Your task to perform on an android device: open app "DoorDash - Food Delivery" (install if not already installed) Image 0: 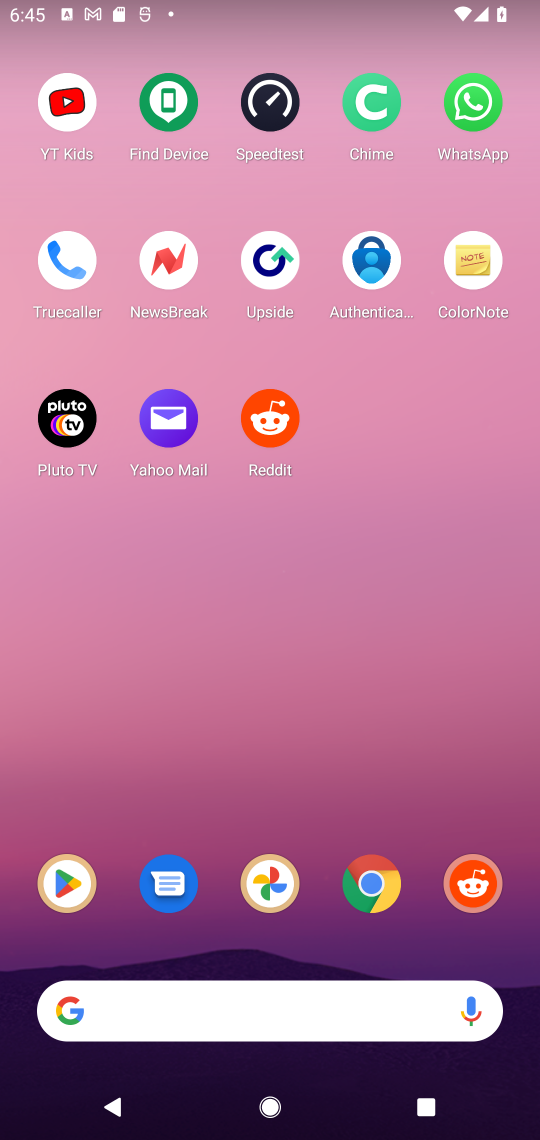
Step 0: drag from (336, 239) to (349, 115)
Your task to perform on an android device: open app "DoorDash - Food Delivery" (install if not already installed) Image 1: 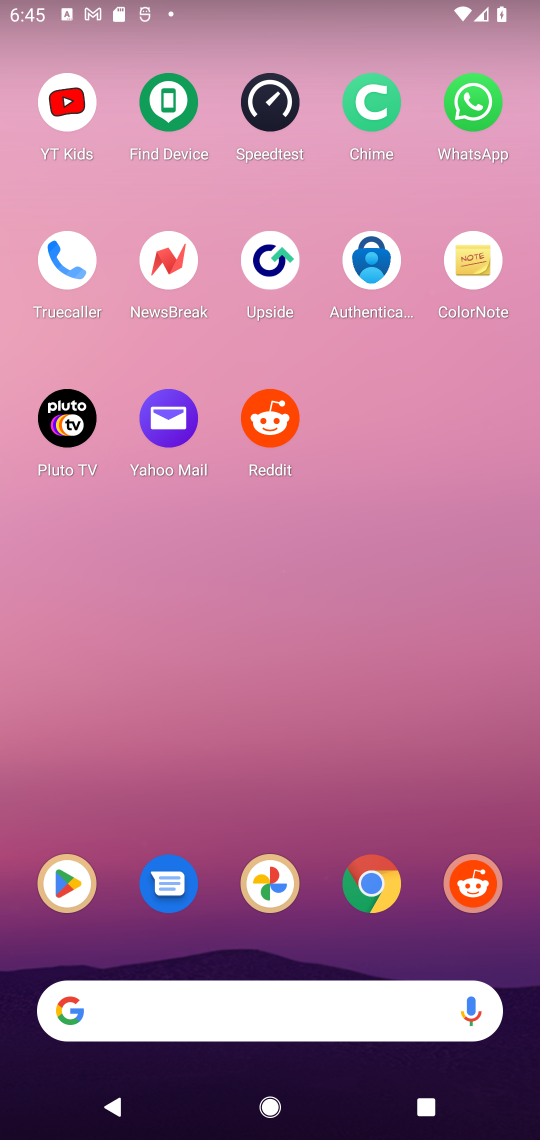
Step 1: drag from (282, 611) to (20, 597)
Your task to perform on an android device: open app "DoorDash - Food Delivery" (install if not already installed) Image 2: 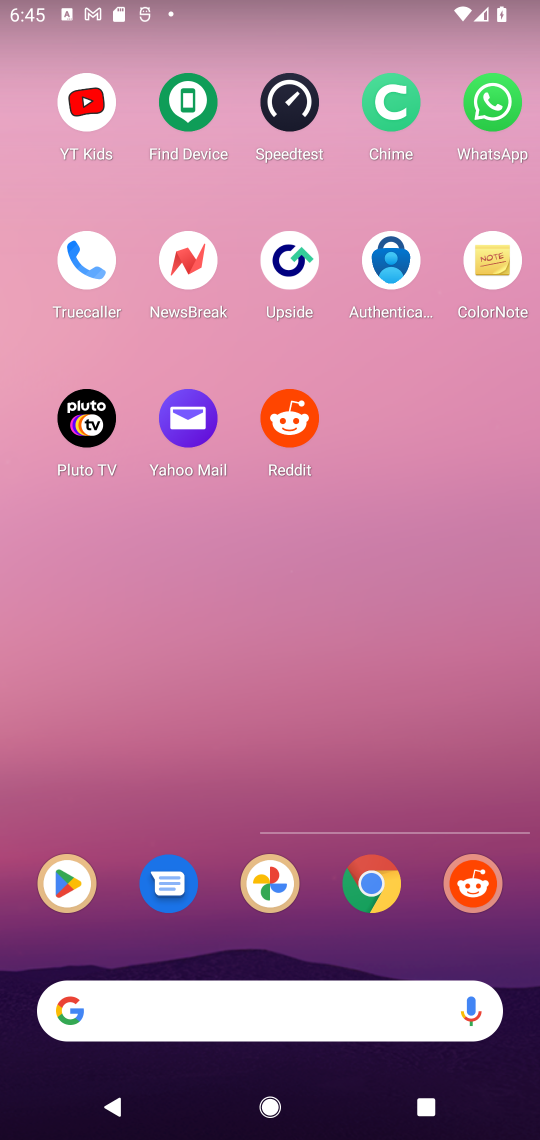
Step 2: drag from (477, 588) to (524, 625)
Your task to perform on an android device: open app "DoorDash - Food Delivery" (install if not already installed) Image 3: 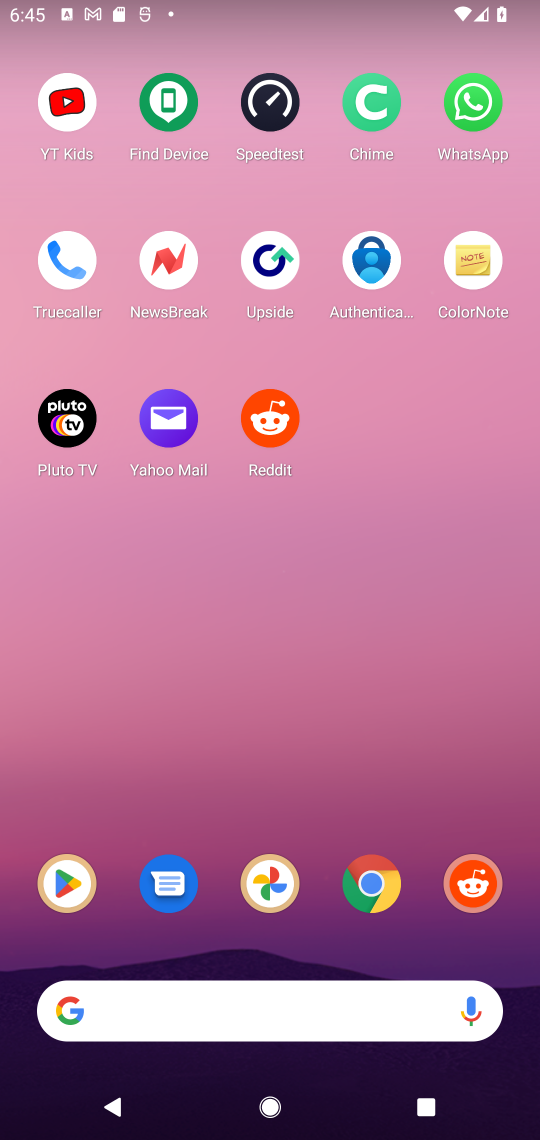
Step 3: drag from (69, 626) to (540, 672)
Your task to perform on an android device: open app "DoorDash - Food Delivery" (install if not already installed) Image 4: 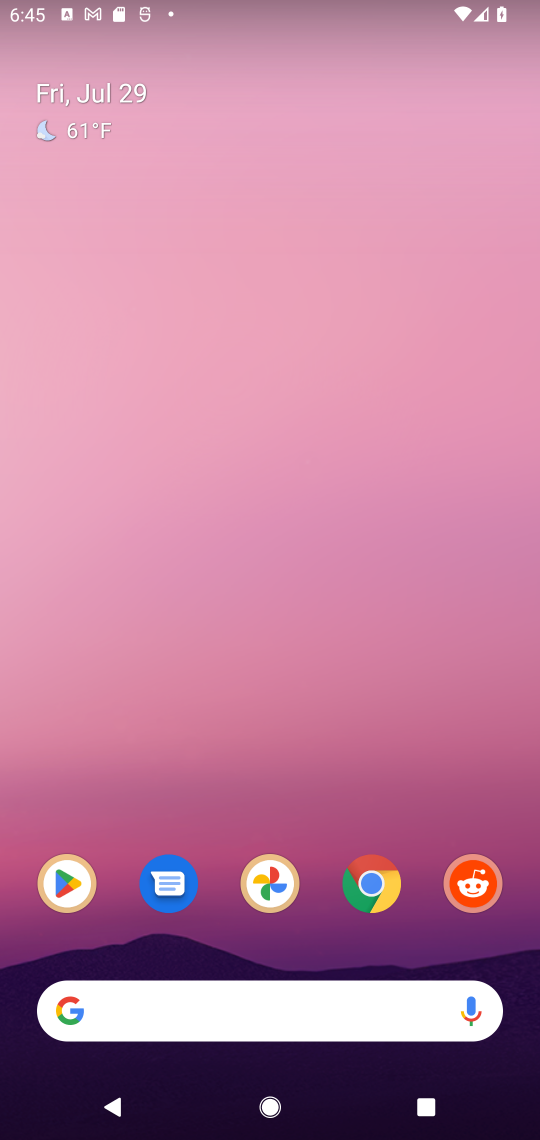
Step 4: drag from (228, 906) to (356, 15)
Your task to perform on an android device: open app "DoorDash - Food Delivery" (install if not already installed) Image 5: 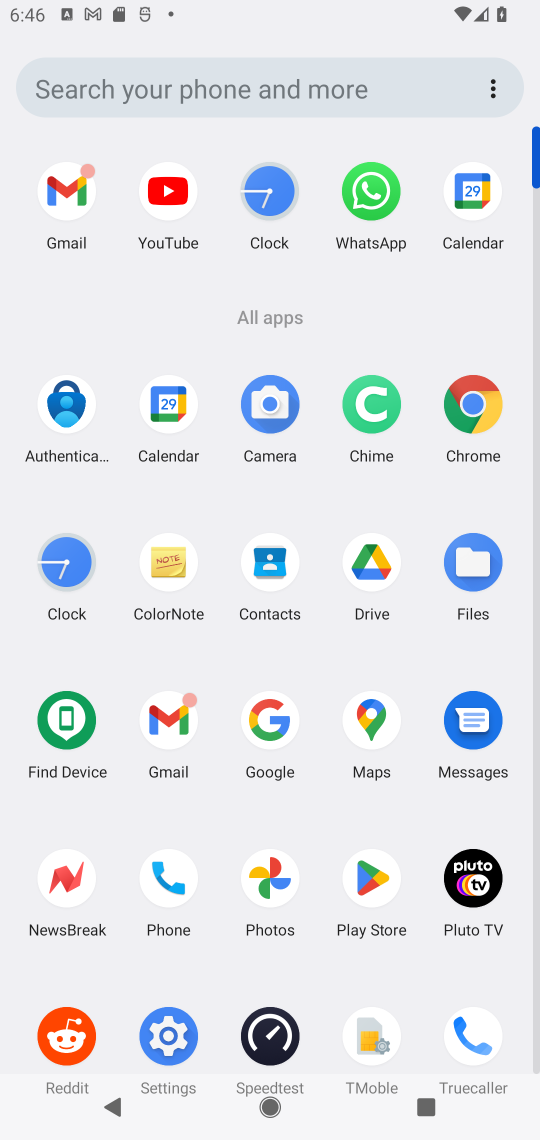
Step 5: drag from (221, 913) to (351, 197)
Your task to perform on an android device: open app "DoorDash - Food Delivery" (install if not already installed) Image 6: 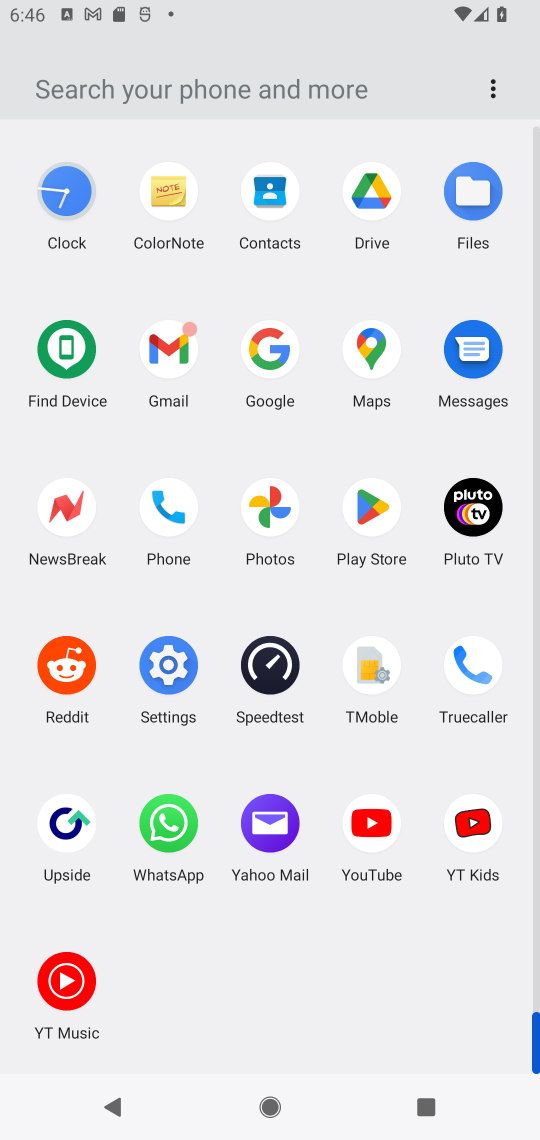
Step 6: drag from (360, 355) to (332, 838)
Your task to perform on an android device: open app "DoorDash - Food Delivery" (install if not already installed) Image 7: 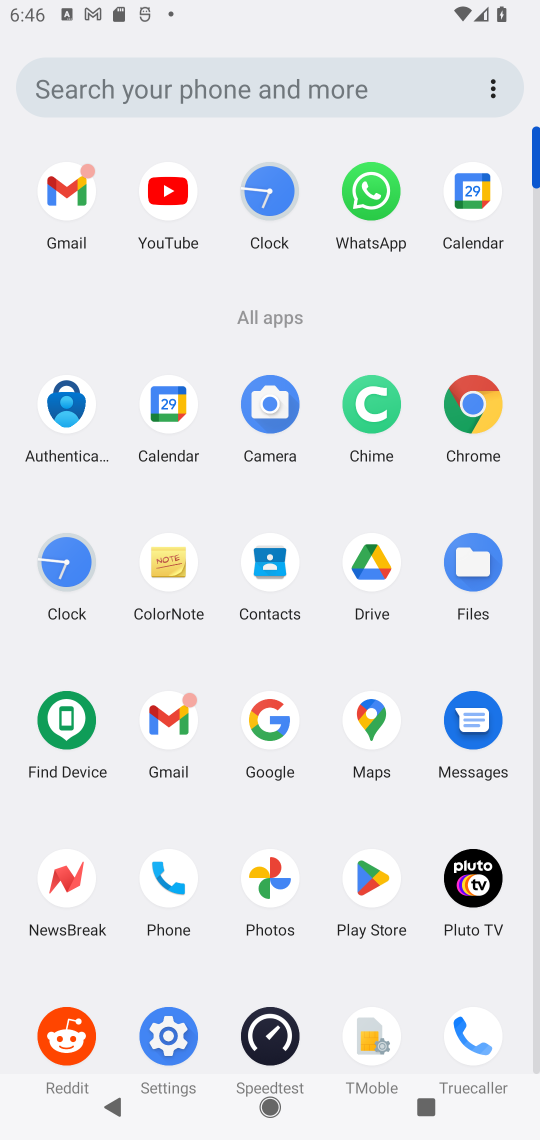
Step 7: click (360, 876)
Your task to perform on an android device: open app "DoorDash - Food Delivery" (install if not already installed) Image 8: 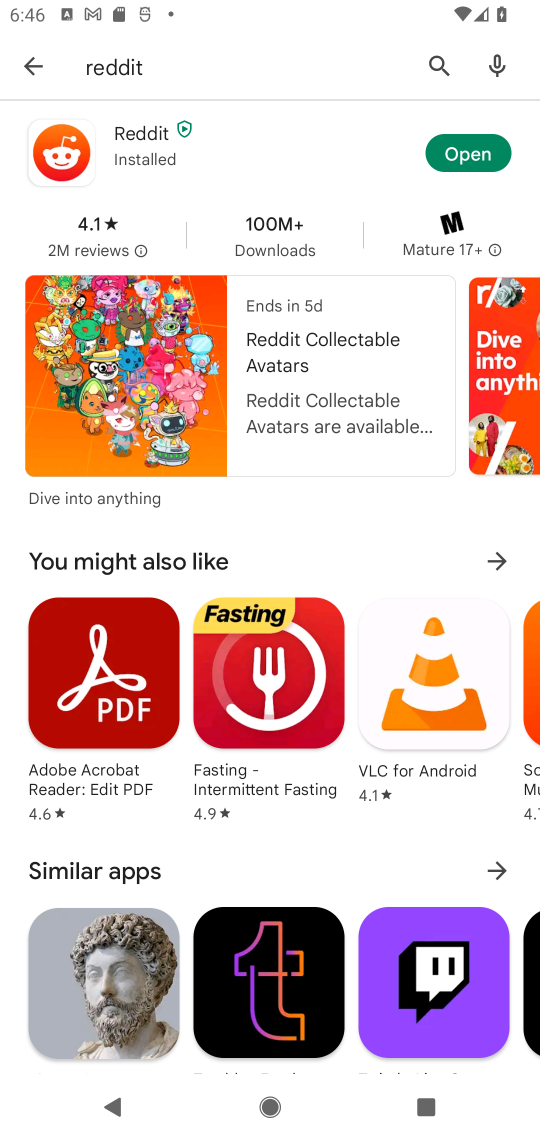
Step 8: click (440, 57)
Your task to perform on an android device: open app "DoorDash - Food Delivery" (install if not already installed) Image 9: 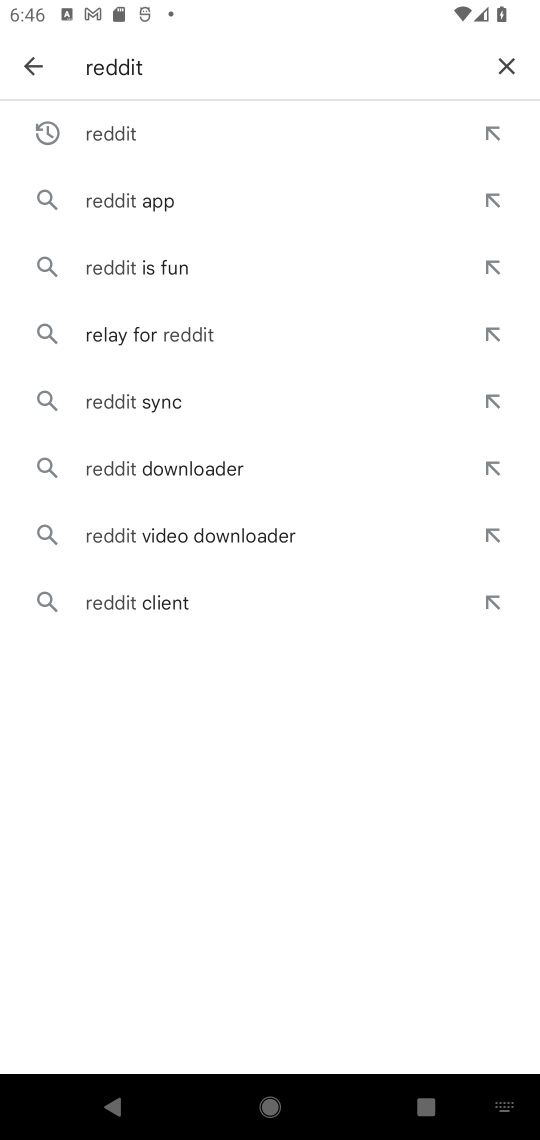
Step 9: click (497, 64)
Your task to perform on an android device: open app "DoorDash - Food Delivery" (install if not already installed) Image 10: 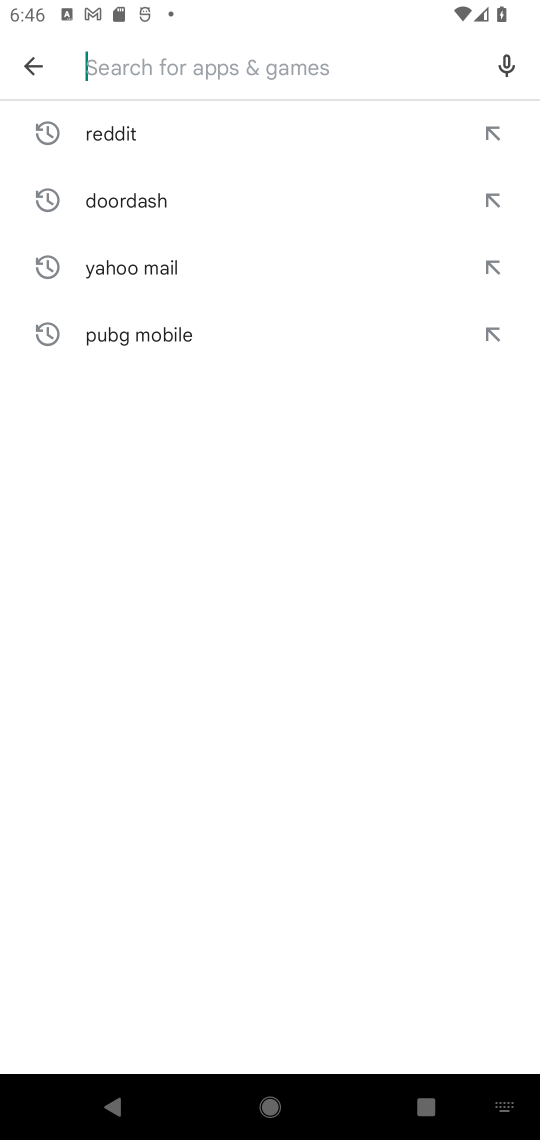
Step 10: click (162, 188)
Your task to perform on an android device: open app "DoorDash - Food Delivery" (install if not already installed) Image 11: 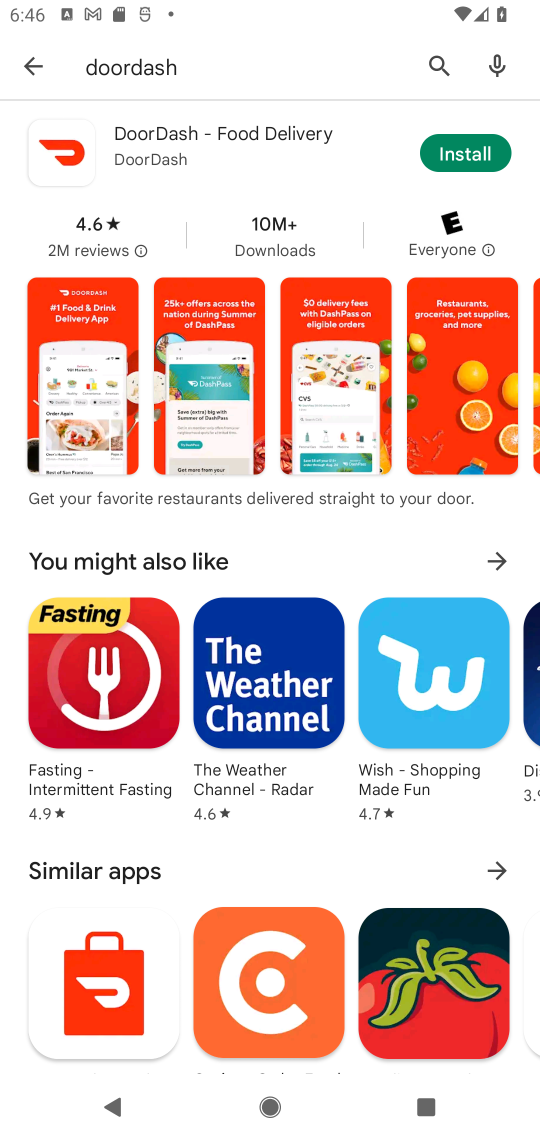
Step 11: click (452, 139)
Your task to perform on an android device: open app "DoorDash - Food Delivery" (install if not already installed) Image 12: 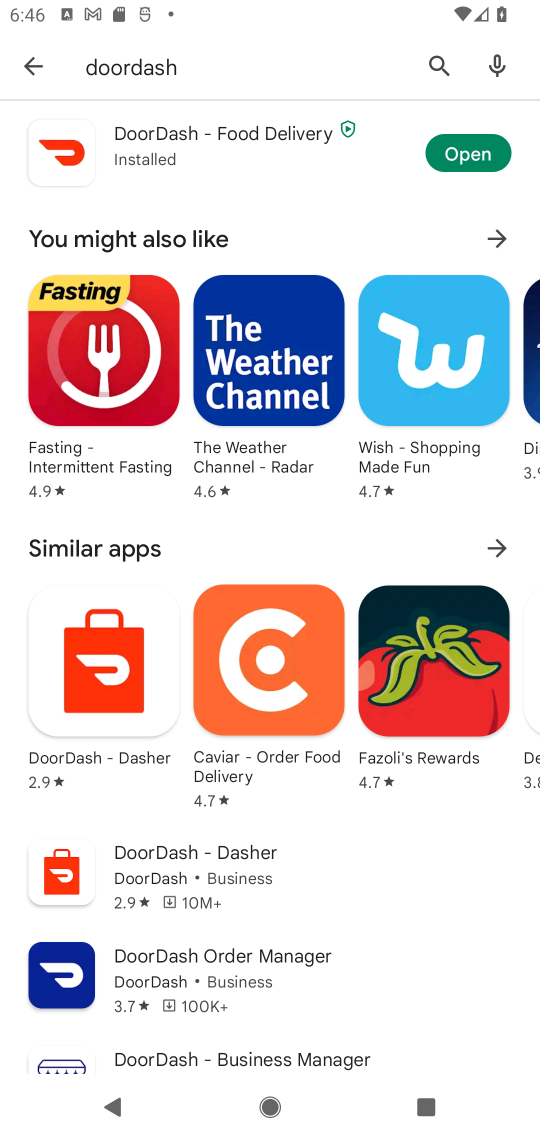
Step 12: click (442, 148)
Your task to perform on an android device: open app "DoorDash - Food Delivery" (install if not already installed) Image 13: 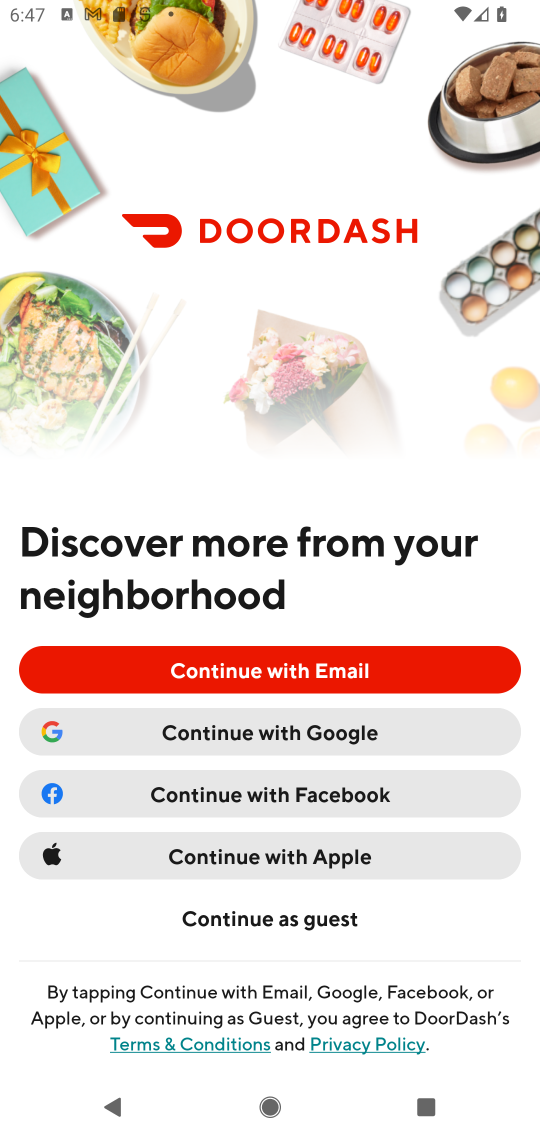
Step 13: task complete